Your task to perform on an android device: open app "Cash App" (install if not already installed) and go to login screen Image 0: 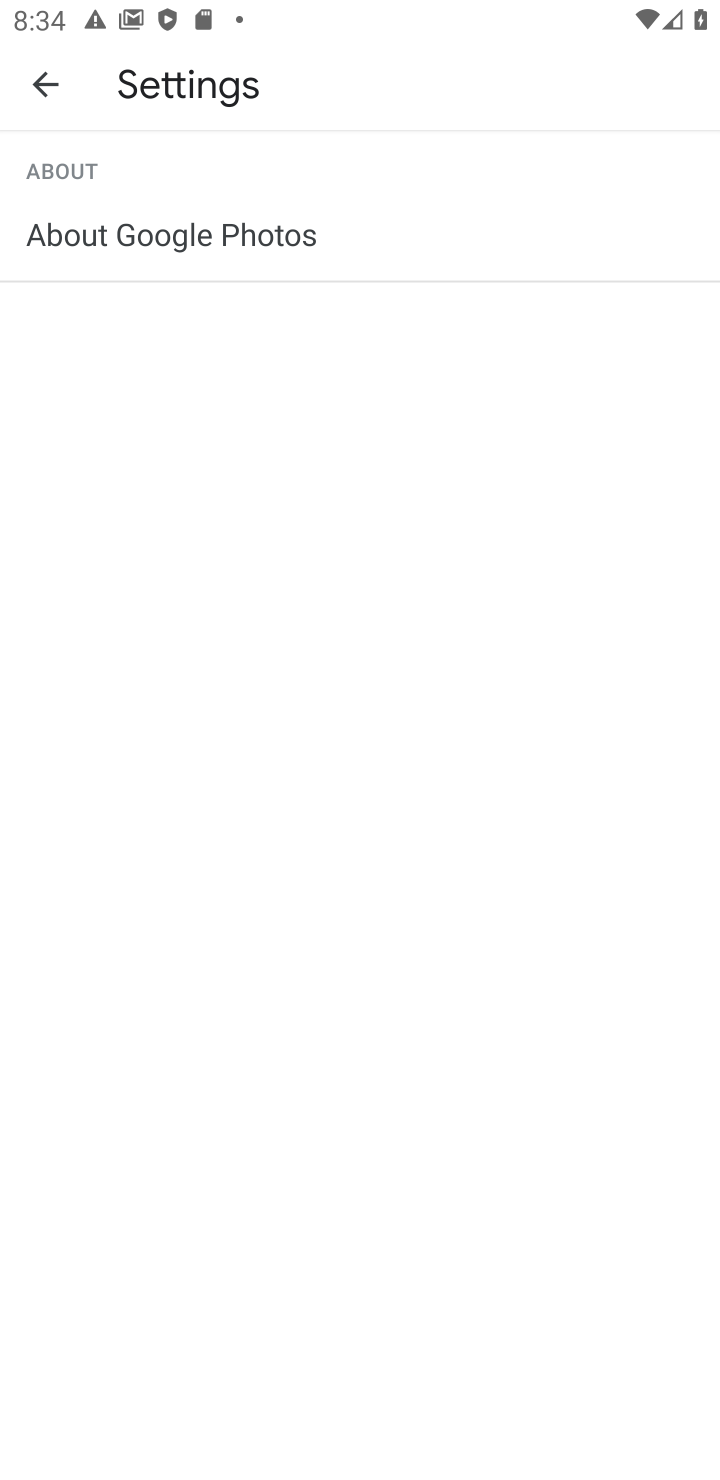
Step 0: press home button
Your task to perform on an android device: open app "Cash App" (install if not already installed) and go to login screen Image 1: 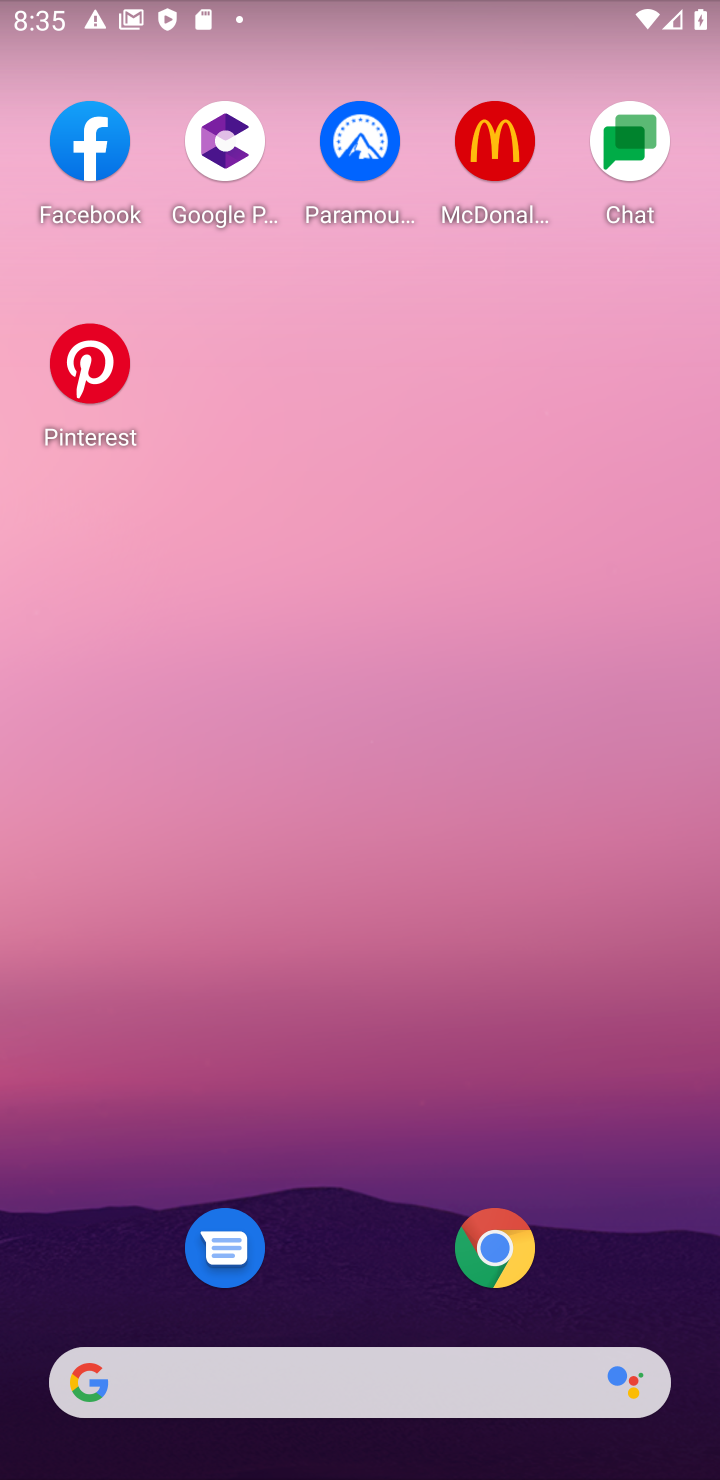
Step 1: drag from (373, 1297) to (386, 209)
Your task to perform on an android device: open app "Cash App" (install if not already installed) and go to login screen Image 2: 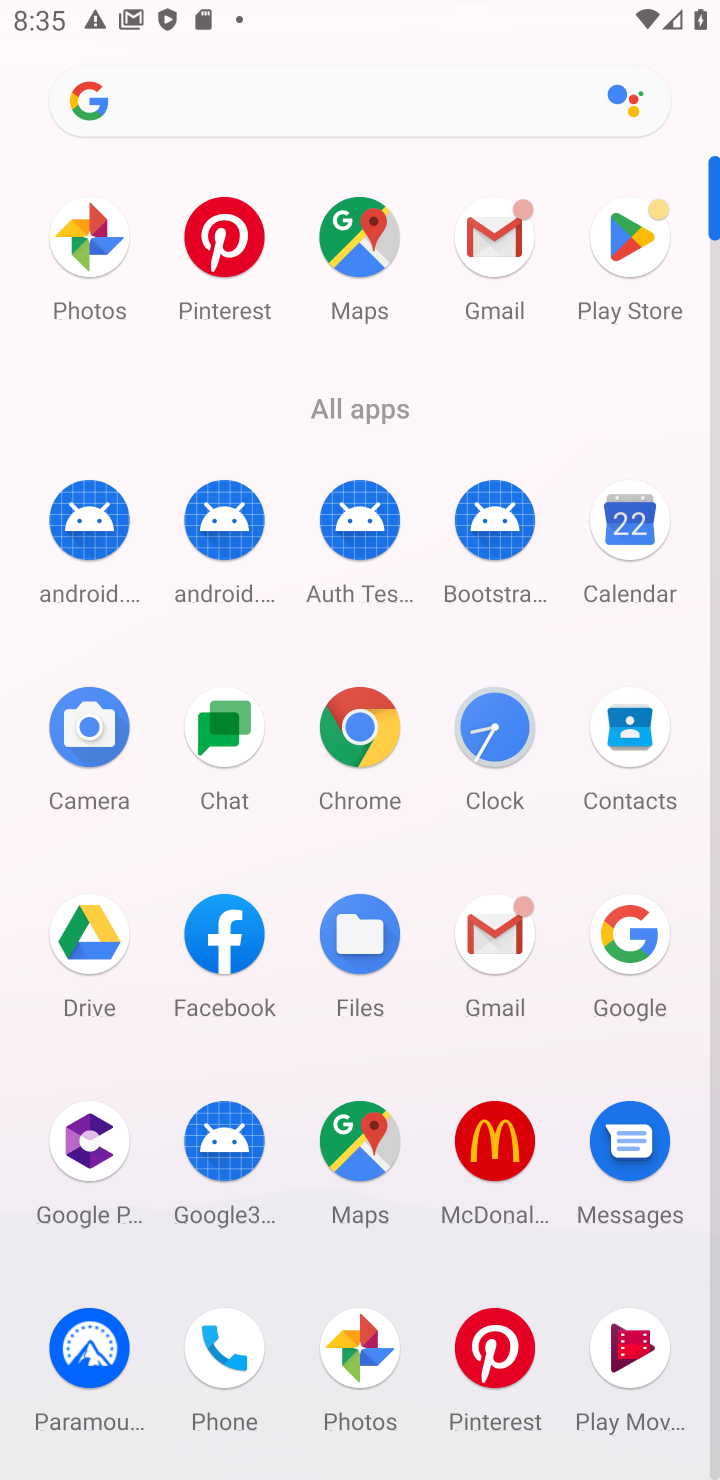
Step 2: click (626, 235)
Your task to perform on an android device: open app "Cash App" (install if not already installed) and go to login screen Image 3: 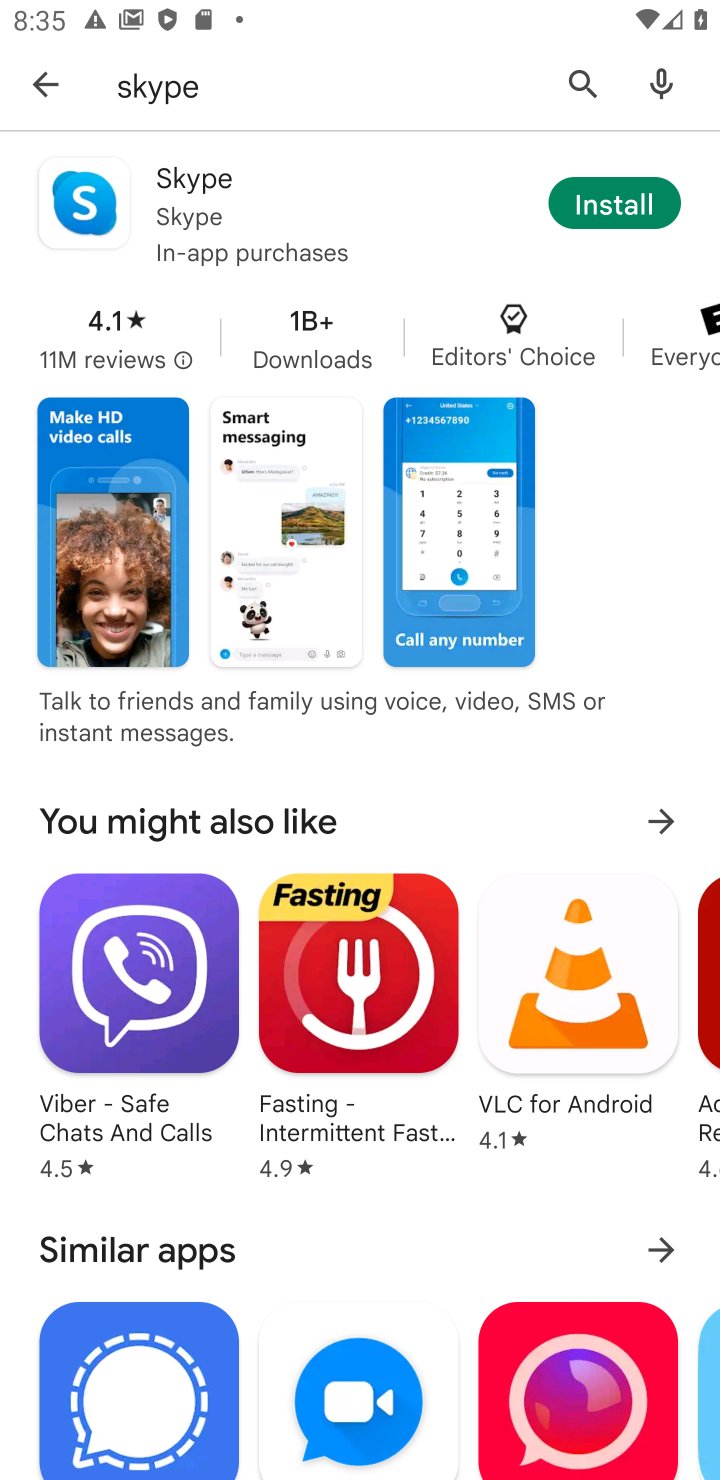
Step 3: click (580, 74)
Your task to perform on an android device: open app "Cash App" (install if not already installed) and go to login screen Image 4: 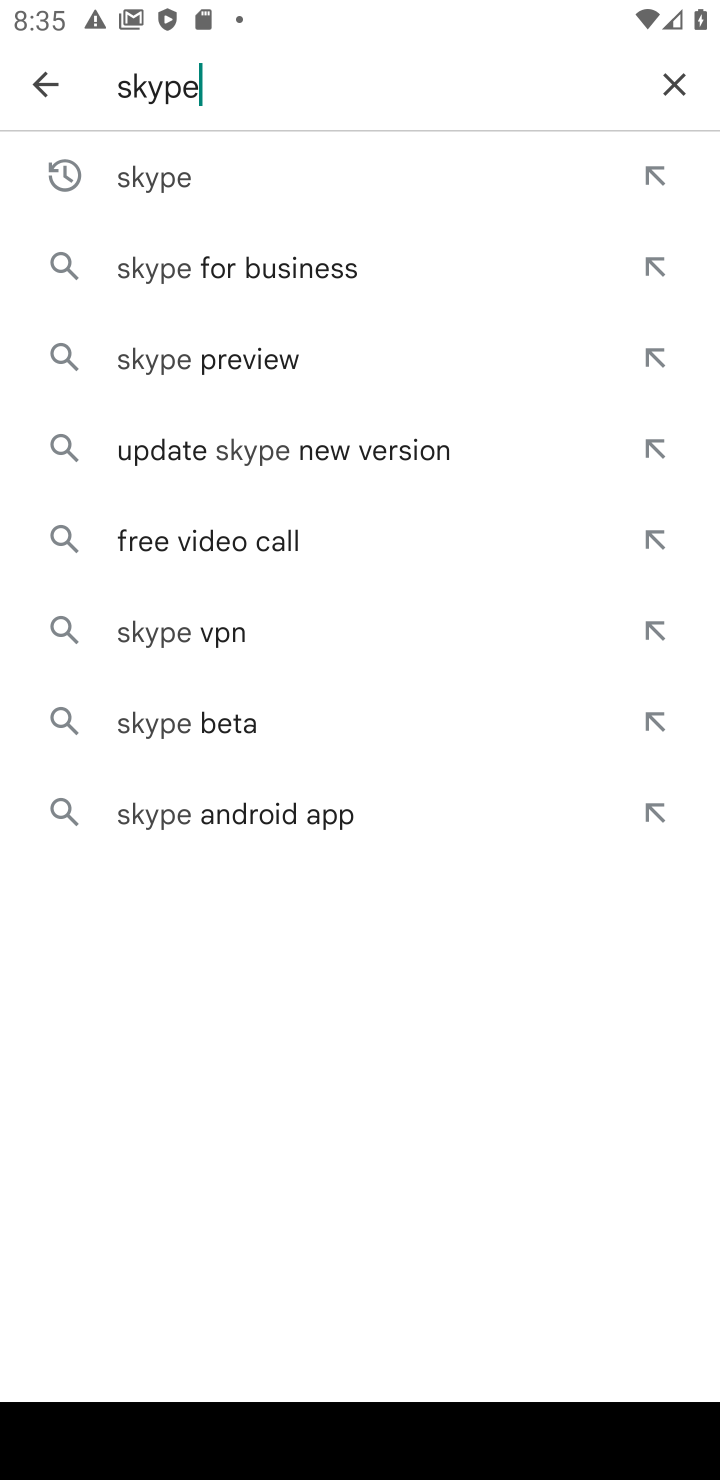
Step 4: click (673, 75)
Your task to perform on an android device: open app "Cash App" (install if not already installed) and go to login screen Image 5: 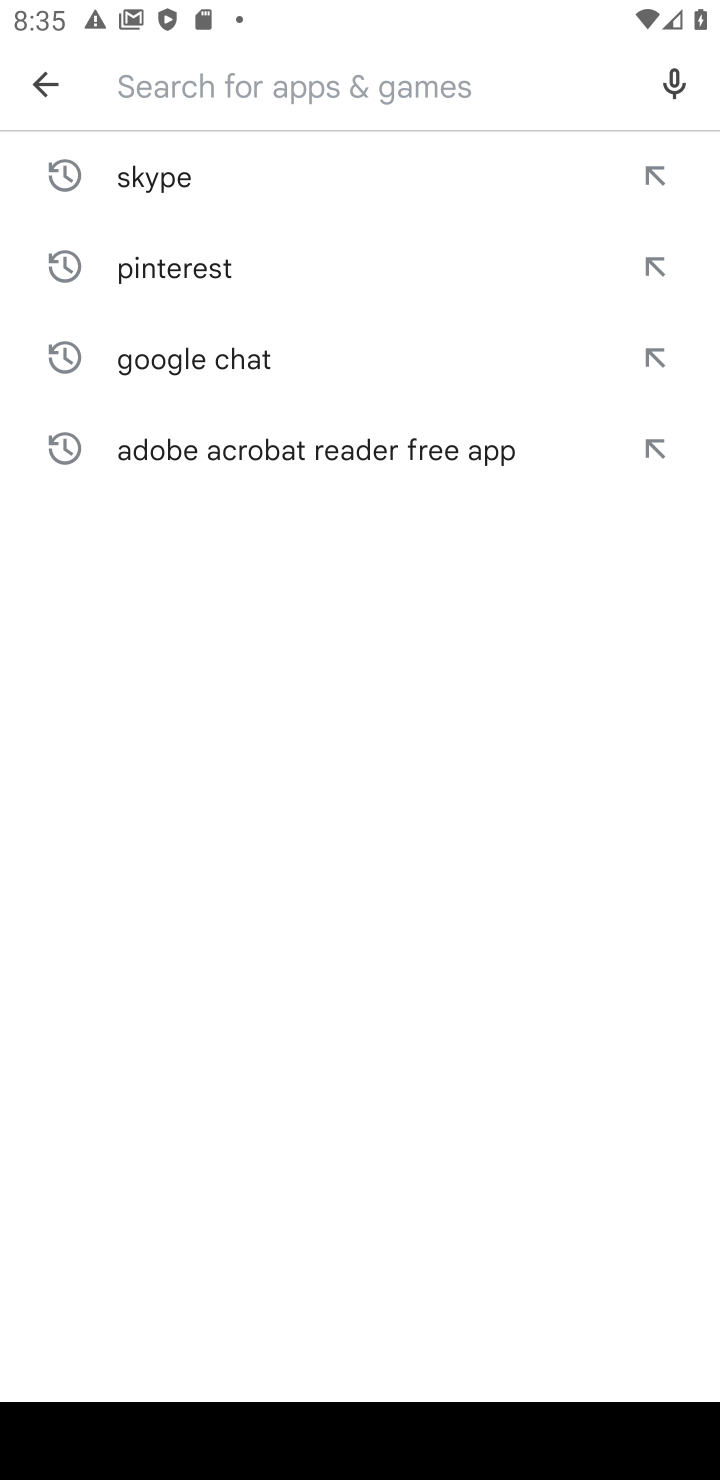
Step 5: type "Cash App"
Your task to perform on an android device: open app "Cash App" (install if not already installed) and go to login screen Image 6: 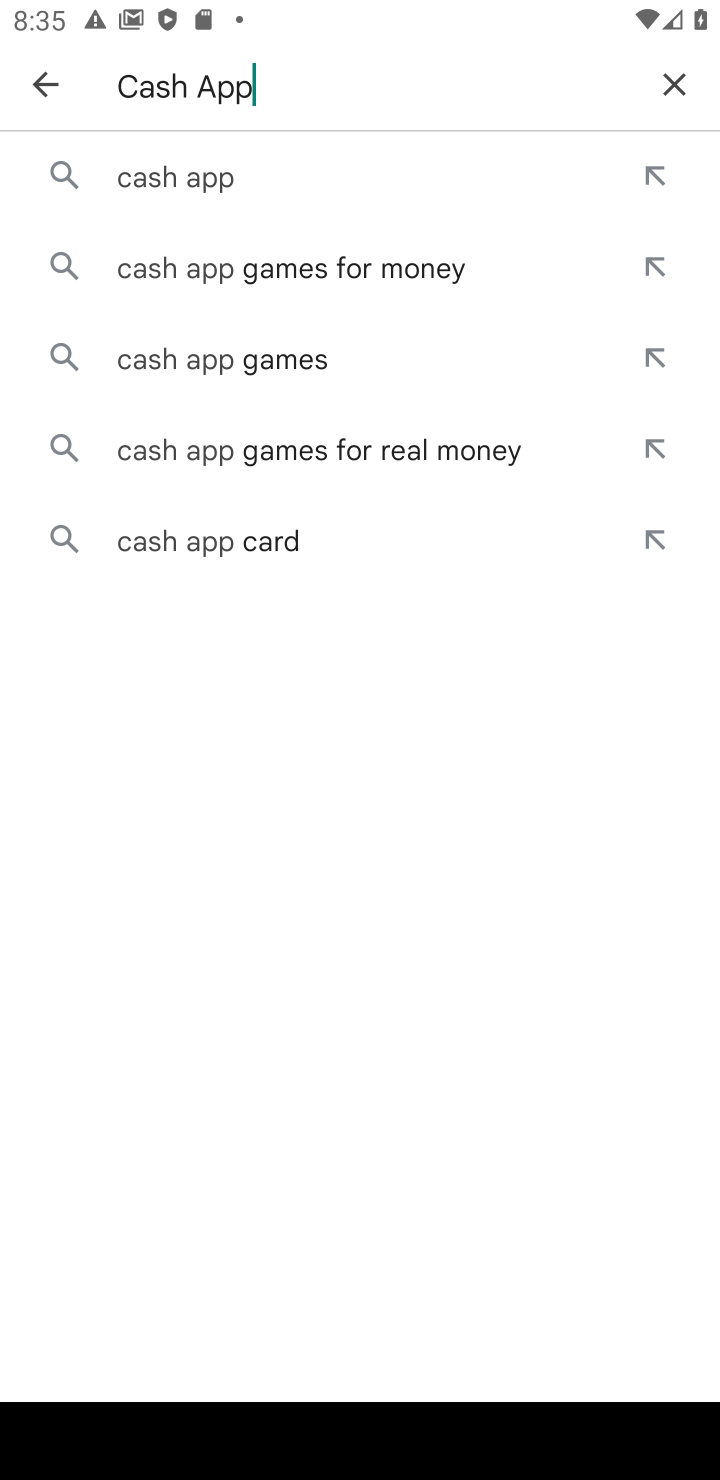
Step 6: click (165, 175)
Your task to perform on an android device: open app "Cash App" (install if not already installed) and go to login screen Image 7: 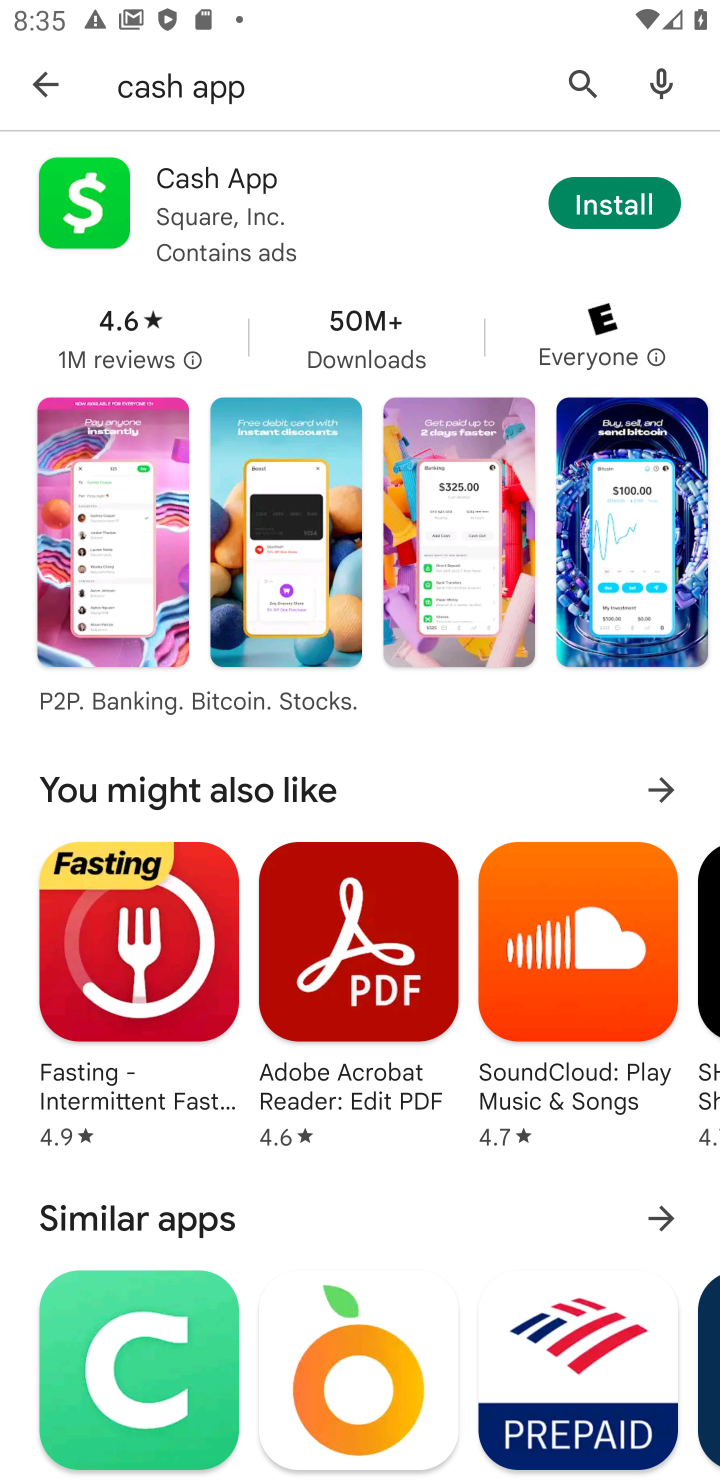
Step 7: click (645, 191)
Your task to perform on an android device: open app "Cash App" (install if not already installed) and go to login screen Image 8: 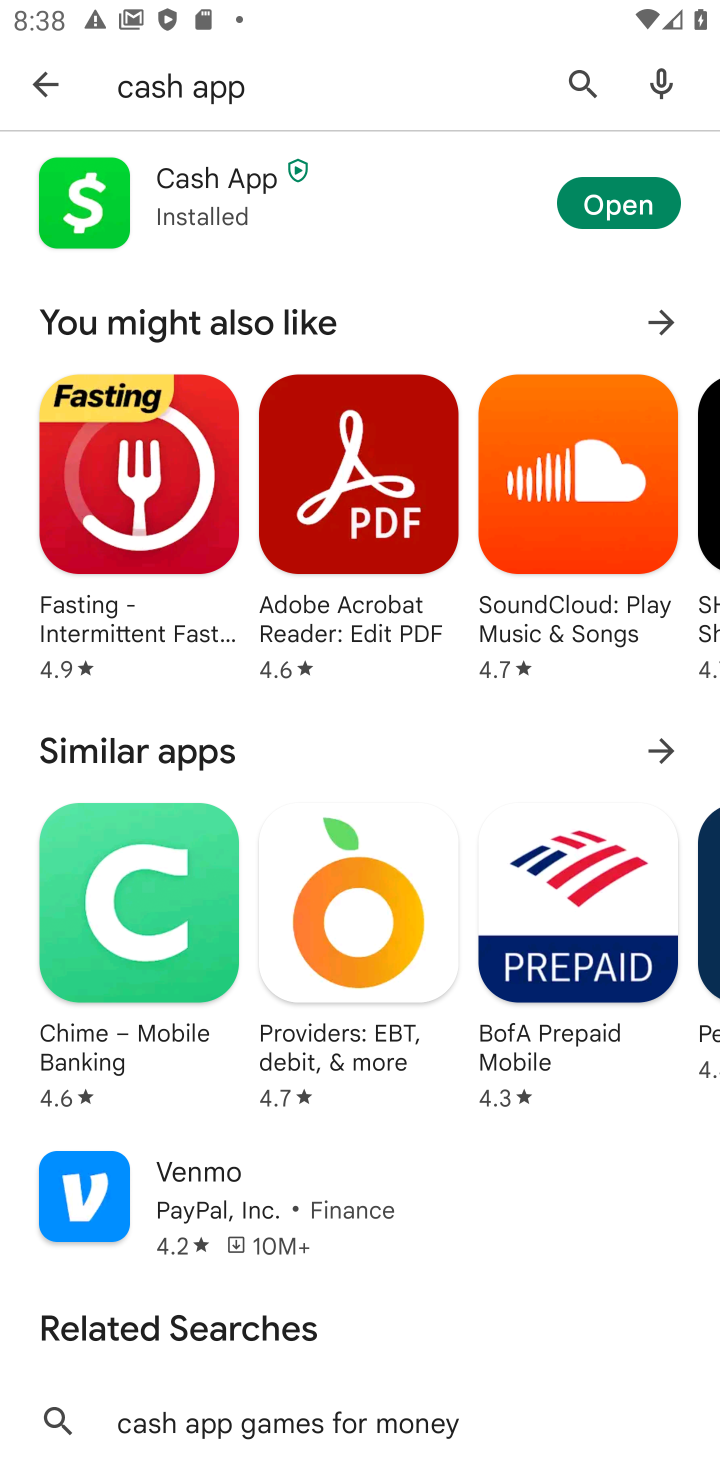
Step 8: click (642, 193)
Your task to perform on an android device: open app "Cash App" (install if not already installed) and go to login screen Image 9: 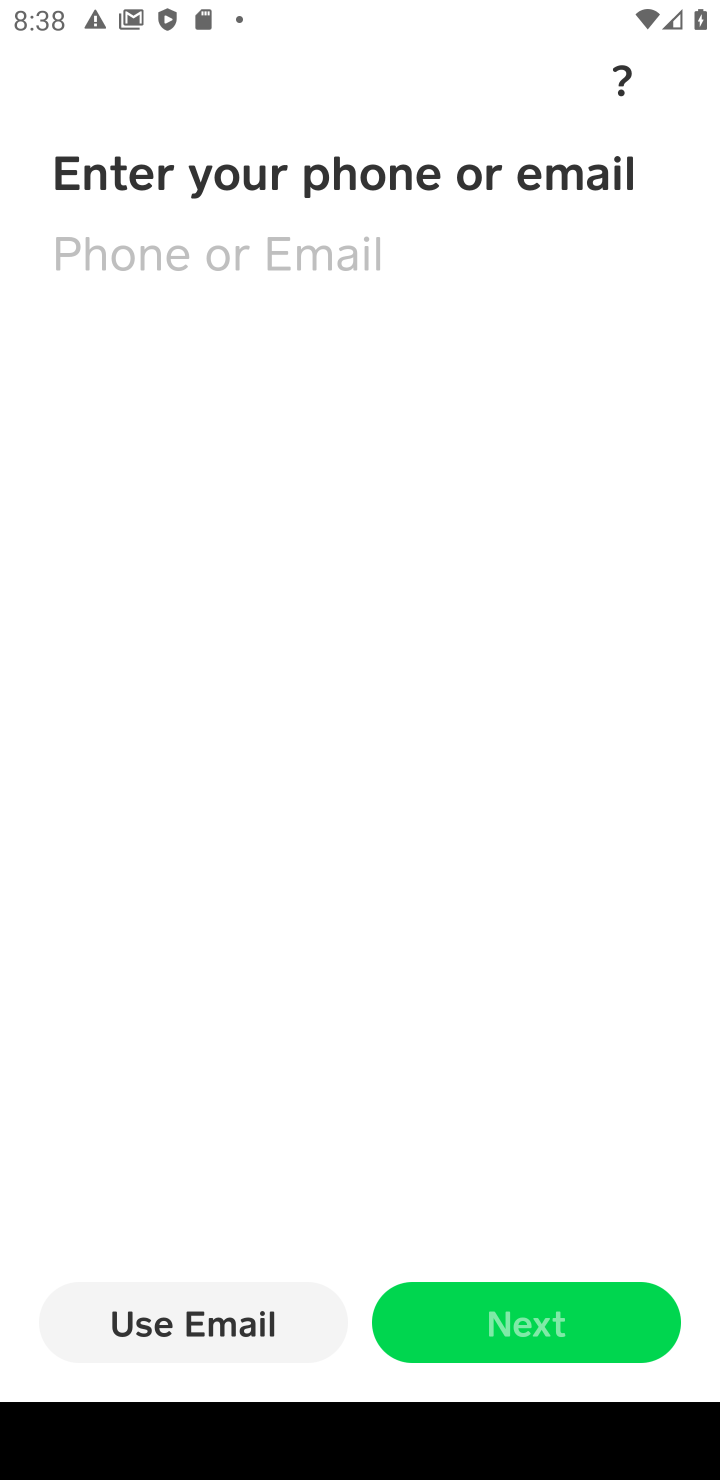
Step 9: task complete